Your task to perform on an android device: open sync settings in chrome Image 0: 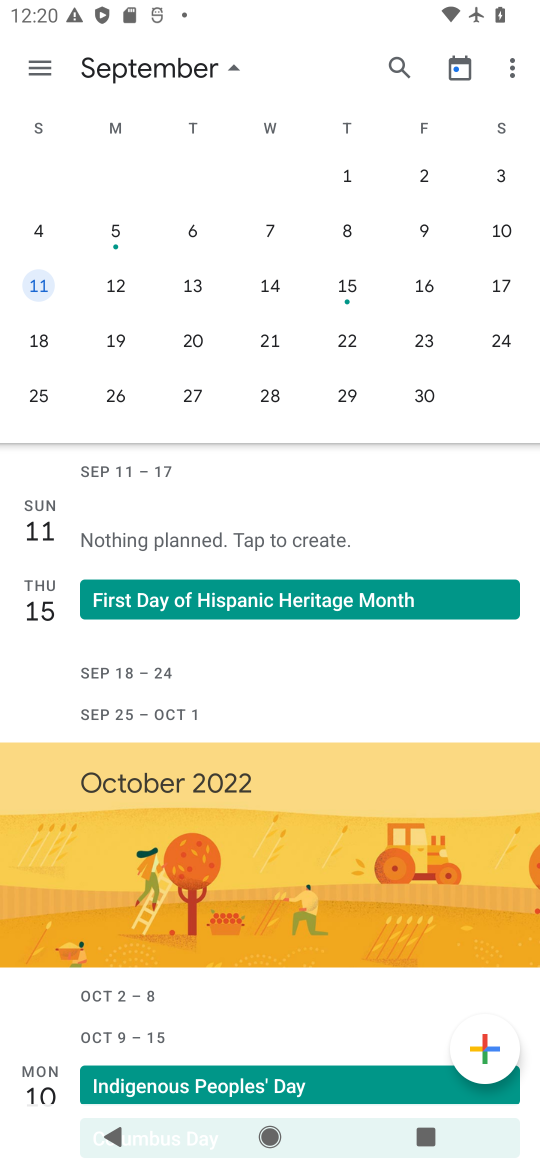
Step 0: press home button
Your task to perform on an android device: open sync settings in chrome Image 1: 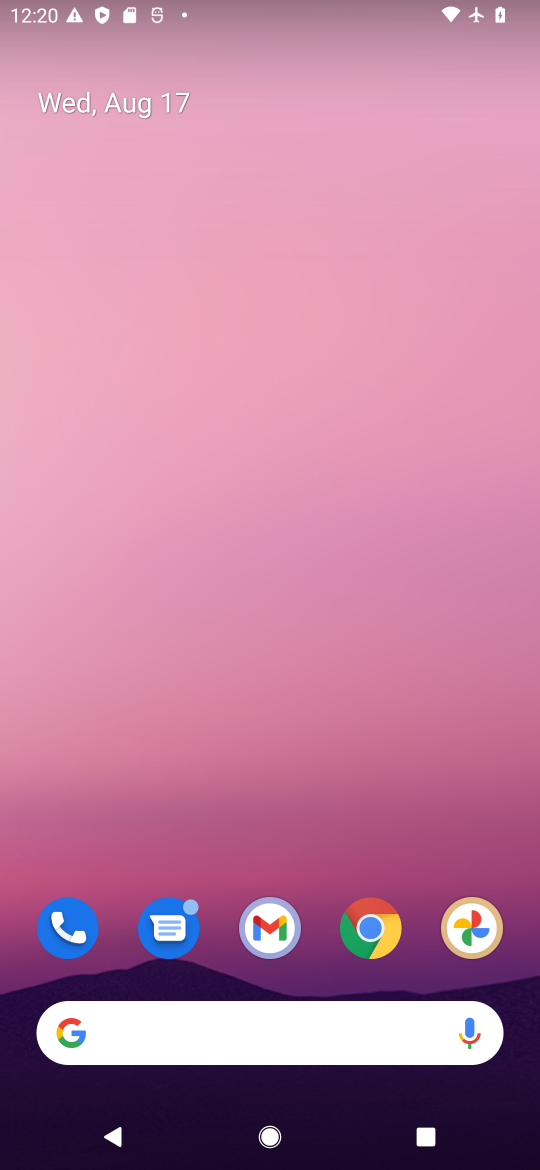
Step 1: click (356, 951)
Your task to perform on an android device: open sync settings in chrome Image 2: 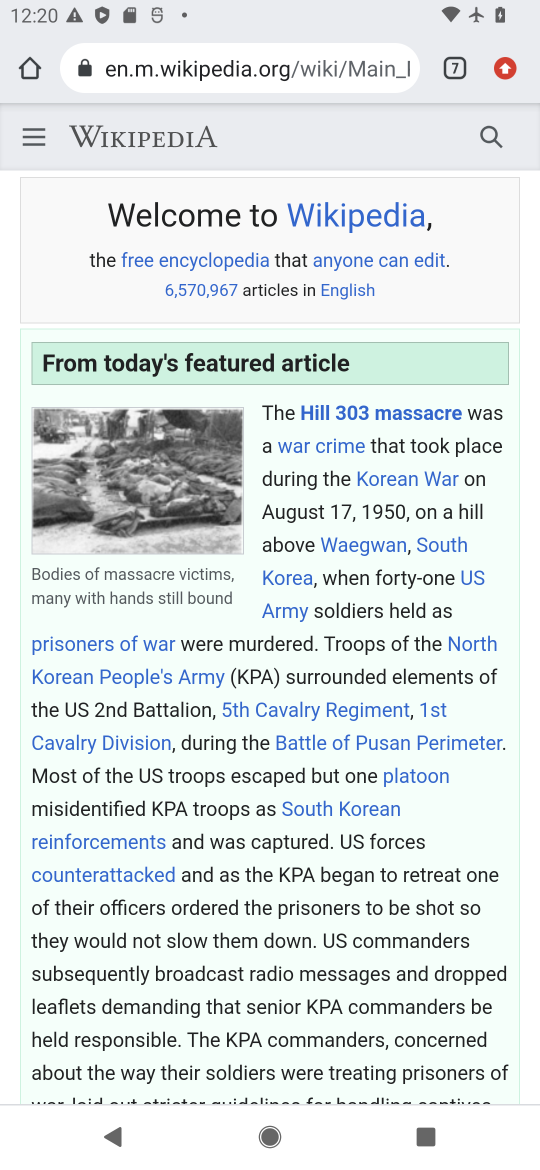
Step 2: click (502, 64)
Your task to perform on an android device: open sync settings in chrome Image 3: 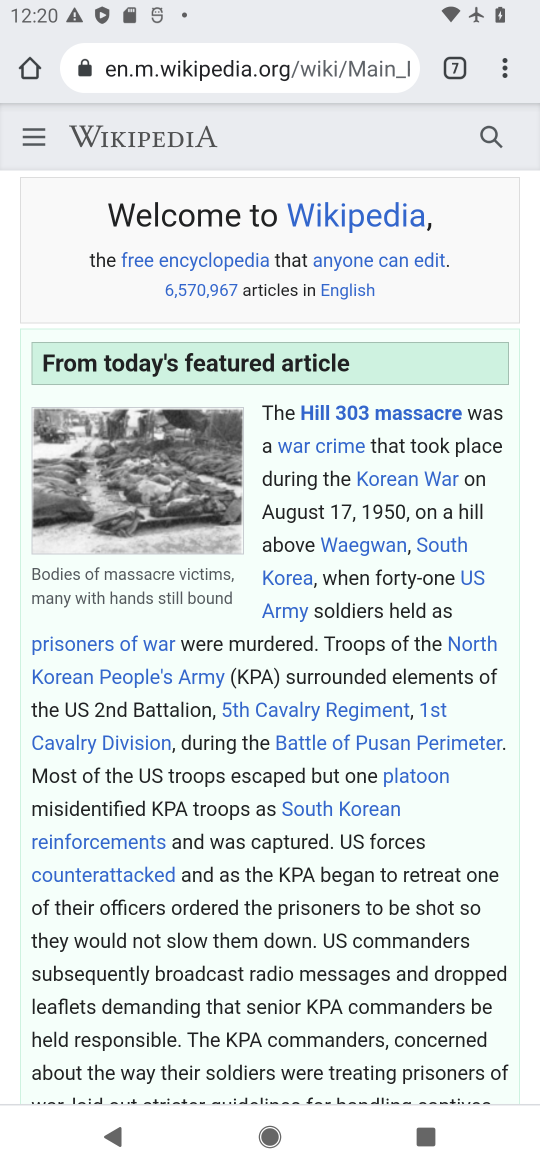
Step 3: click (511, 75)
Your task to perform on an android device: open sync settings in chrome Image 4: 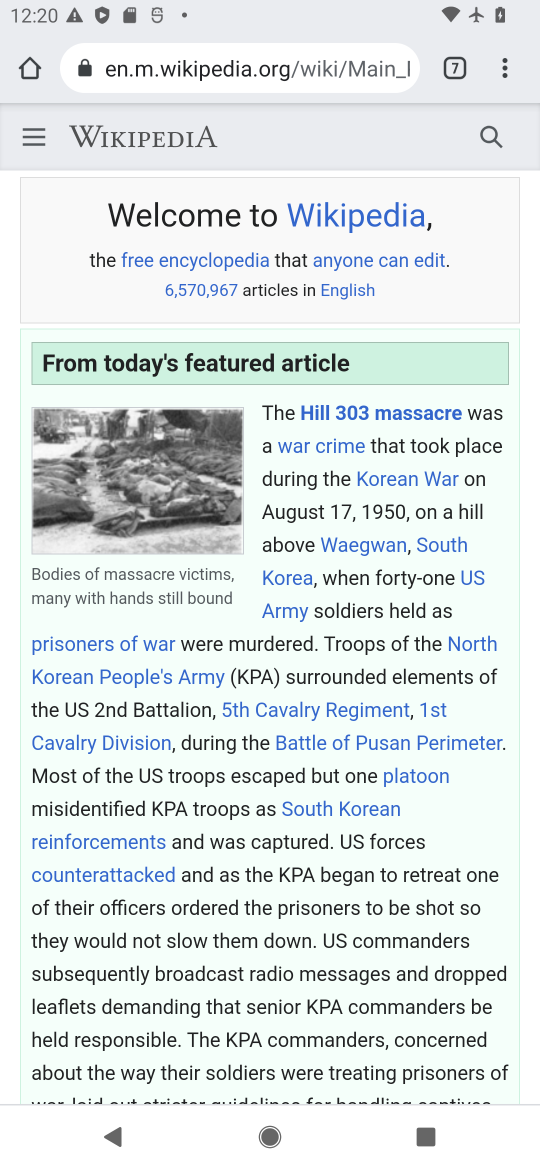
Step 4: click (494, 71)
Your task to perform on an android device: open sync settings in chrome Image 5: 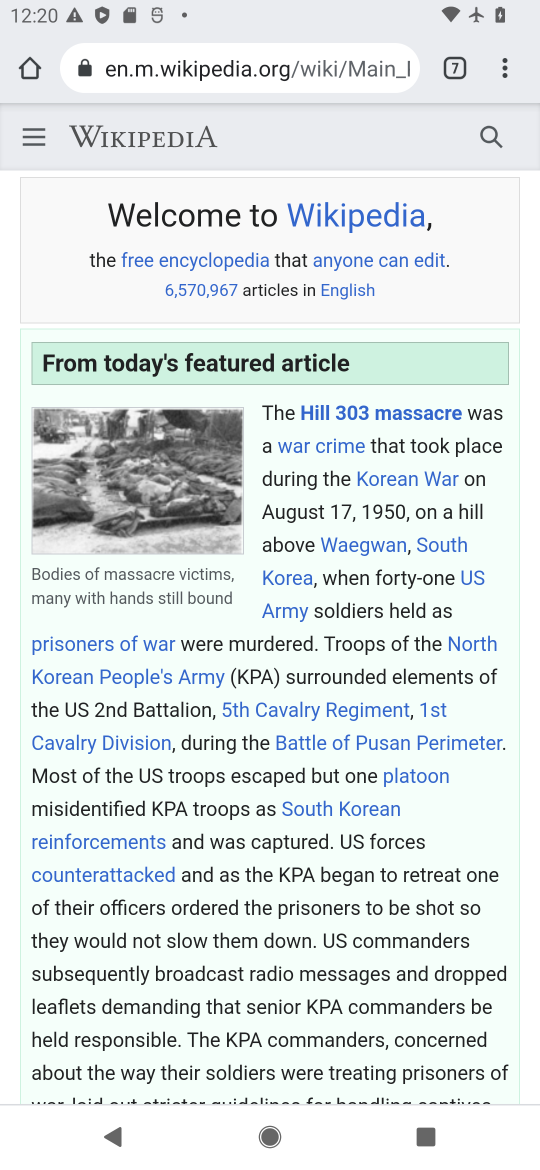
Step 5: drag from (504, 59) to (353, 919)
Your task to perform on an android device: open sync settings in chrome Image 6: 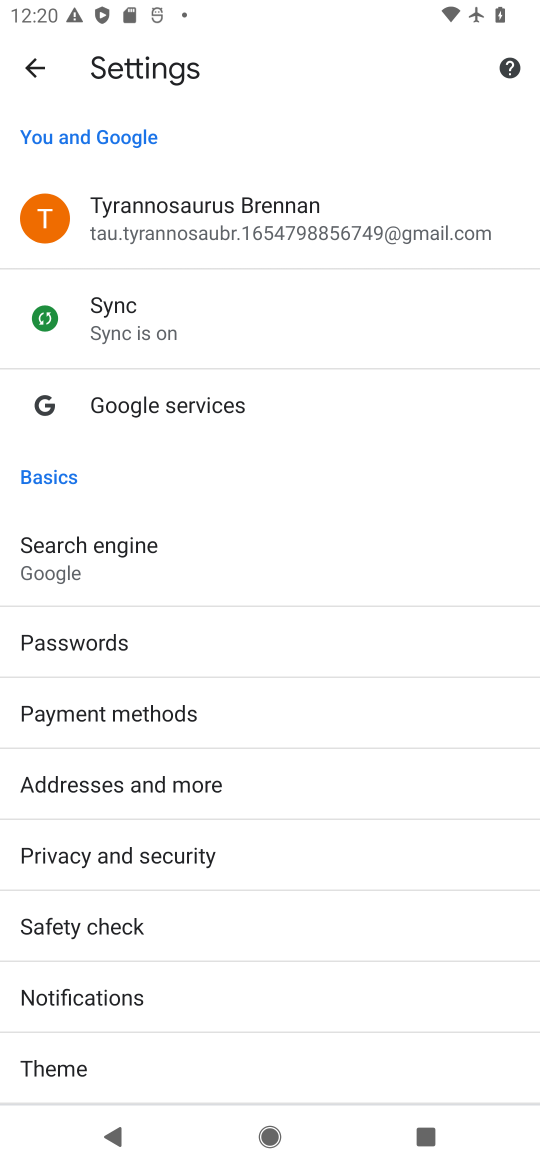
Step 6: click (200, 305)
Your task to perform on an android device: open sync settings in chrome Image 7: 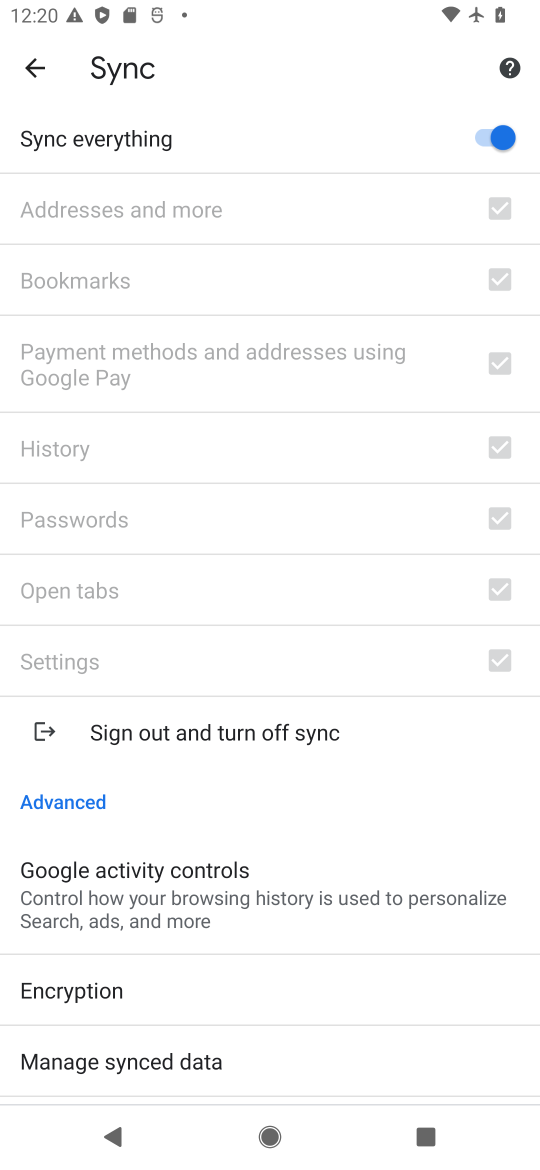
Step 7: task complete